Your task to perform on an android device: Do I have any events this weekend? Image 0: 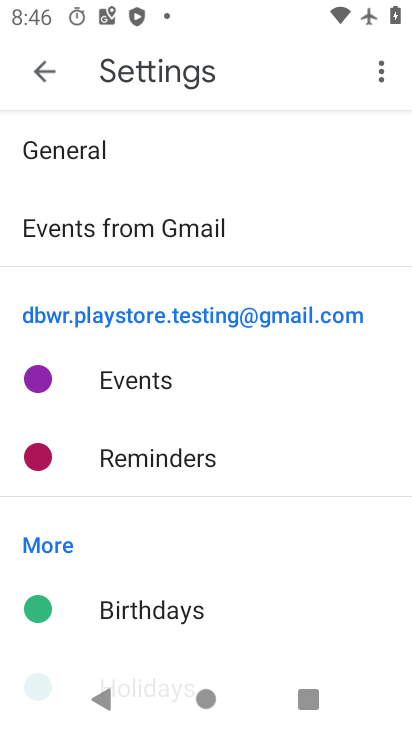
Step 0: press home button
Your task to perform on an android device: Do I have any events this weekend? Image 1: 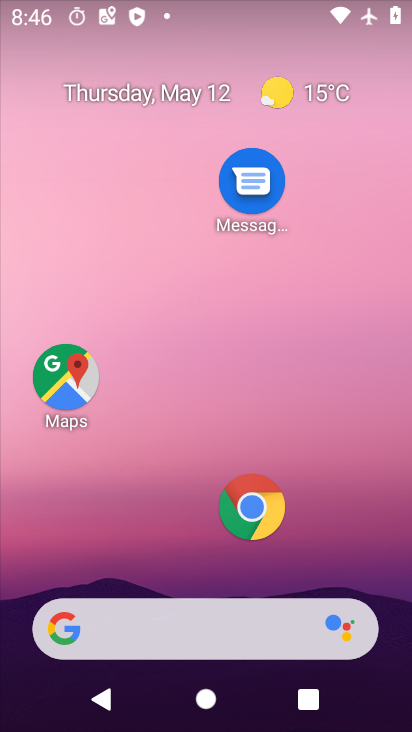
Step 1: drag from (153, 600) to (159, 174)
Your task to perform on an android device: Do I have any events this weekend? Image 2: 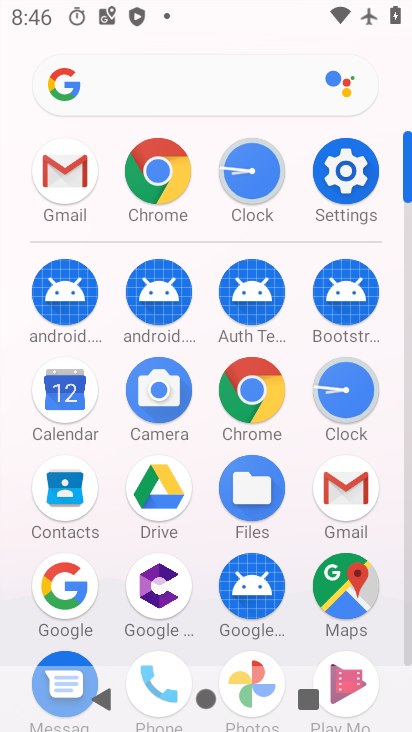
Step 2: click (61, 395)
Your task to perform on an android device: Do I have any events this weekend? Image 3: 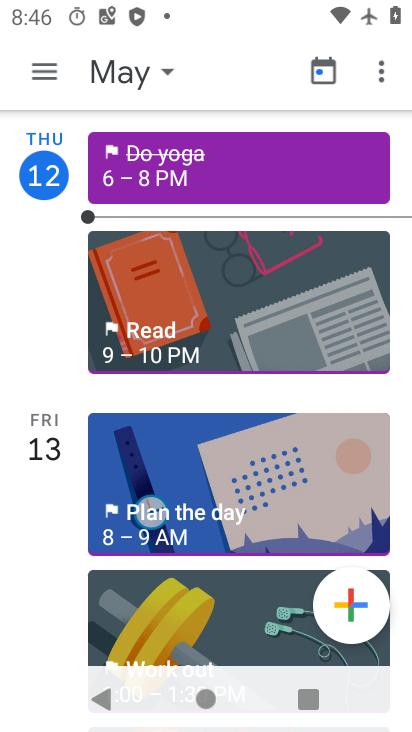
Step 3: click (155, 80)
Your task to perform on an android device: Do I have any events this weekend? Image 4: 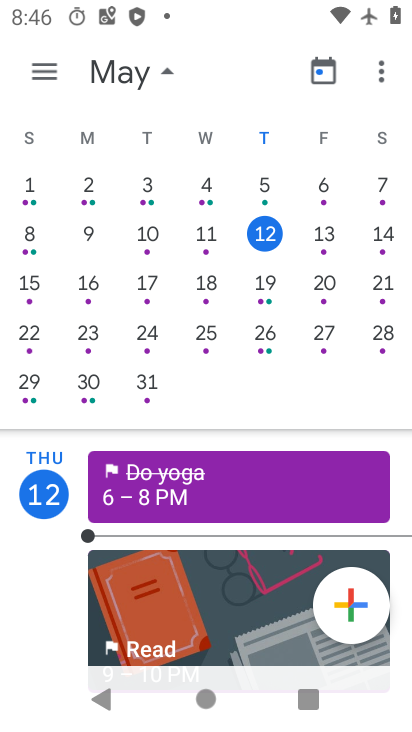
Step 4: click (384, 241)
Your task to perform on an android device: Do I have any events this weekend? Image 5: 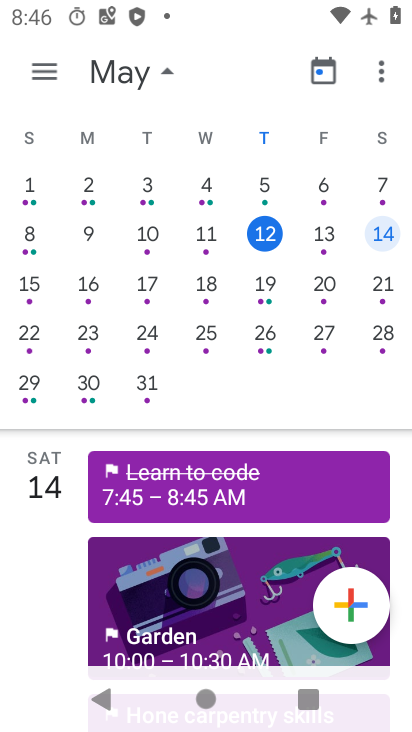
Step 5: task complete